Your task to perform on an android device: Open privacy settings Image 0: 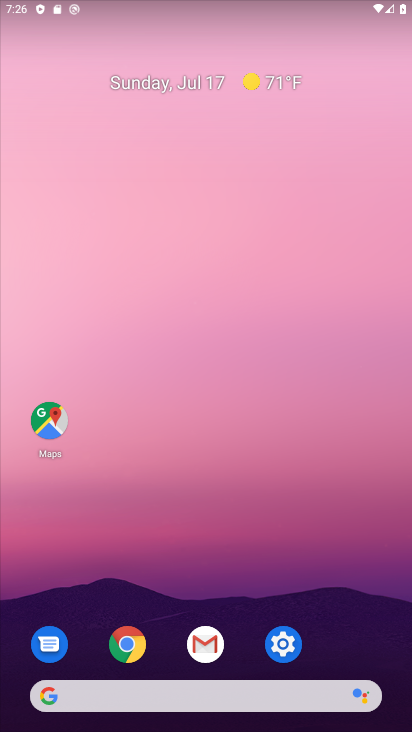
Step 0: click (288, 657)
Your task to perform on an android device: Open privacy settings Image 1: 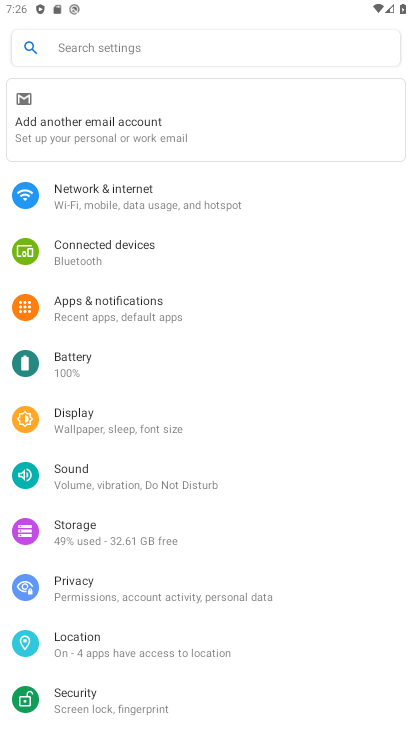
Step 1: click (85, 588)
Your task to perform on an android device: Open privacy settings Image 2: 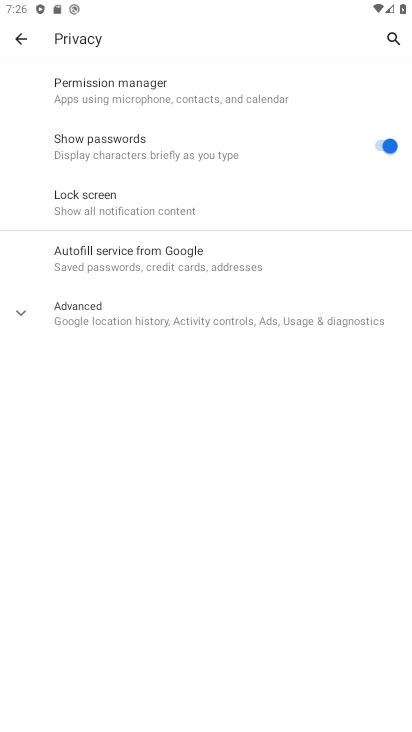
Step 2: task complete